Your task to perform on an android device: Empty the shopping cart on costco. Search for "jbl charge 4" on costco, select the first entry, add it to the cart, then select checkout. Image 0: 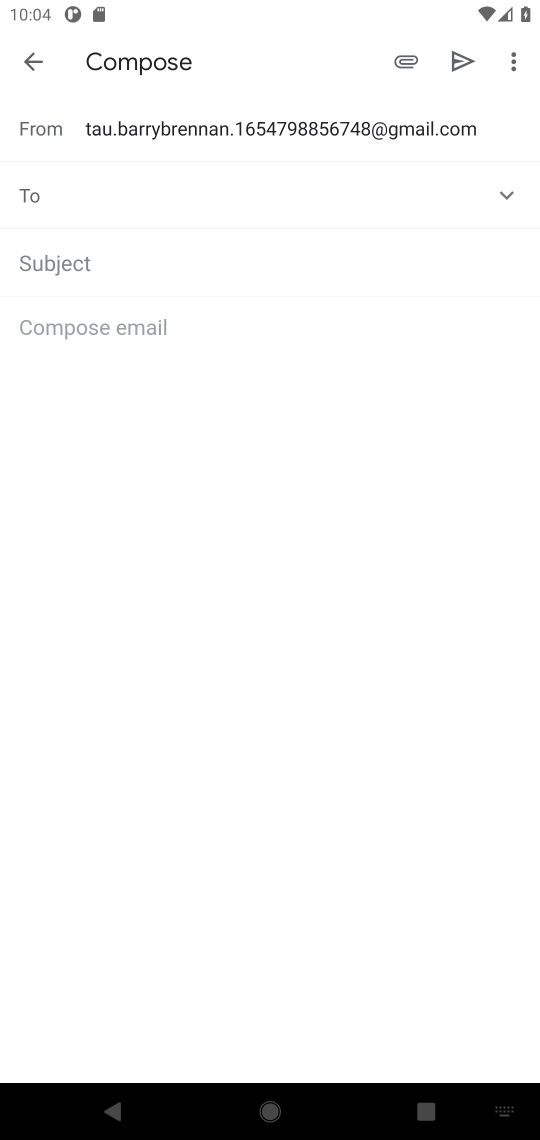
Step 0: press home button
Your task to perform on an android device: Empty the shopping cart on costco. Search for "jbl charge 4" on costco, select the first entry, add it to the cart, then select checkout. Image 1: 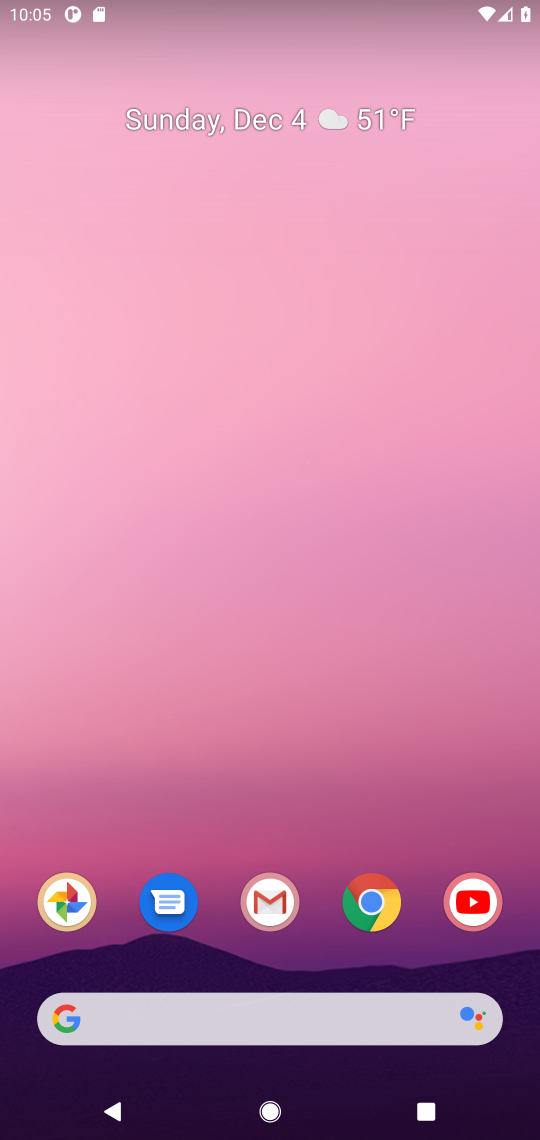
Step 1: click (381, 898)
Your task to perform on an android device: Empty the shopping cart on costco. Search for "jbl charge 4" on costco, select the first entry, add it to the cart, then select checkout. Image 2: 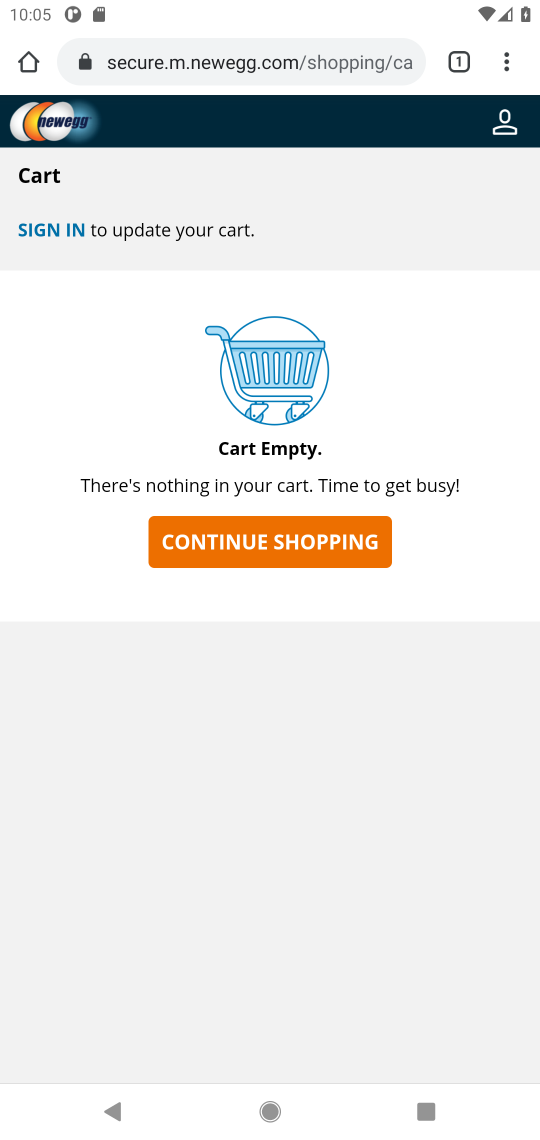
Step 2: click (222, 61)
Your task to perform on an android device: Empty the shopping cart on costco. Search for "jbl charge 4" on costco, select the first entry, add it to the cart, then select checkout. Image 3: 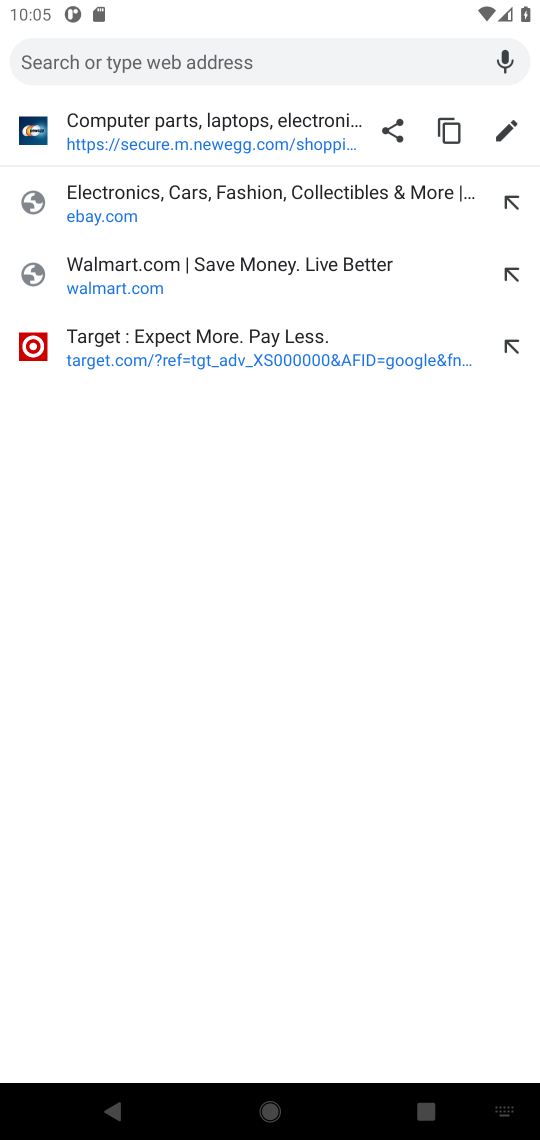
Step 3: type "cosrco"
Your task to perform on an android device: Empty the shopping cart on costco. Search for "jbl charge 4" on costco, select the first entry, add it to the cart, then select checkout. Image 4: 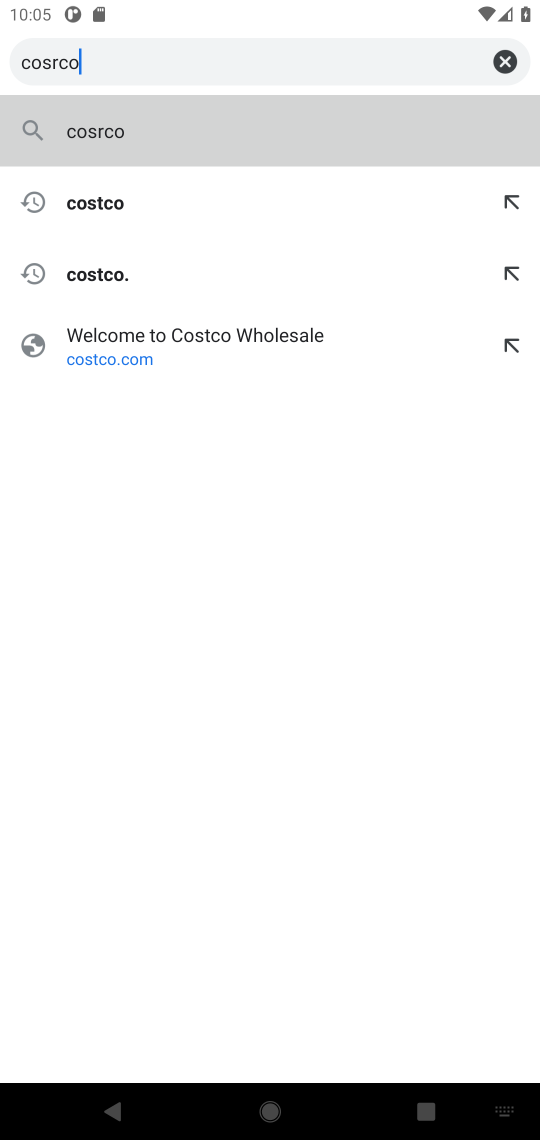
Step 4: click (168, 219)
Your task to perform on an android device: Empty the shopping cart on costco. Search for "jbl charge 4" on costco, select the first entry, add it to the cart, then select checkout. Image 5: 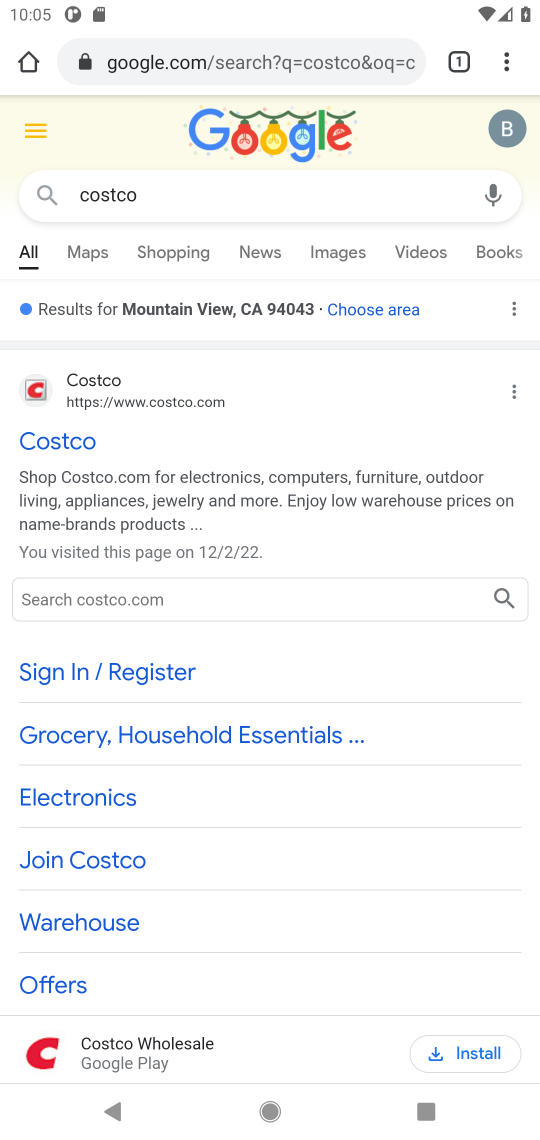
Step 5: click (80, 434)
Your task to perform on an android device: Empty the shopping cart on costco. Search for "jbl charge 4" on costco, select the first entry, add it to the cart, then select checkout. Image 6: 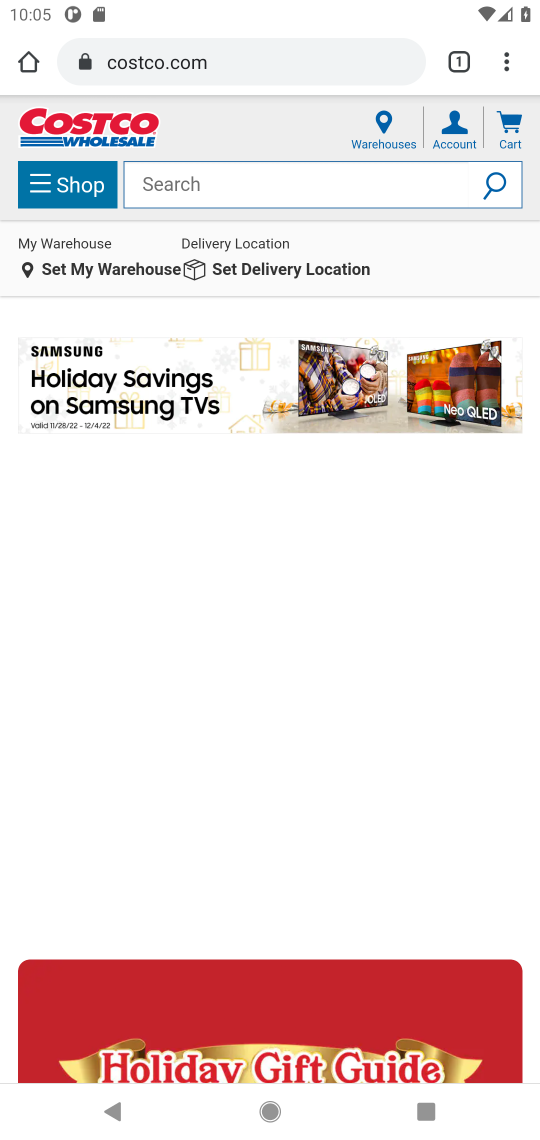
Step 6: click (178, 175)
Your task to perform on an android device: Empty the shopping cart on costco. Search for "jbl charge 4" on costco, select the first entry, add it to the cart, then select checkout. Image 7: 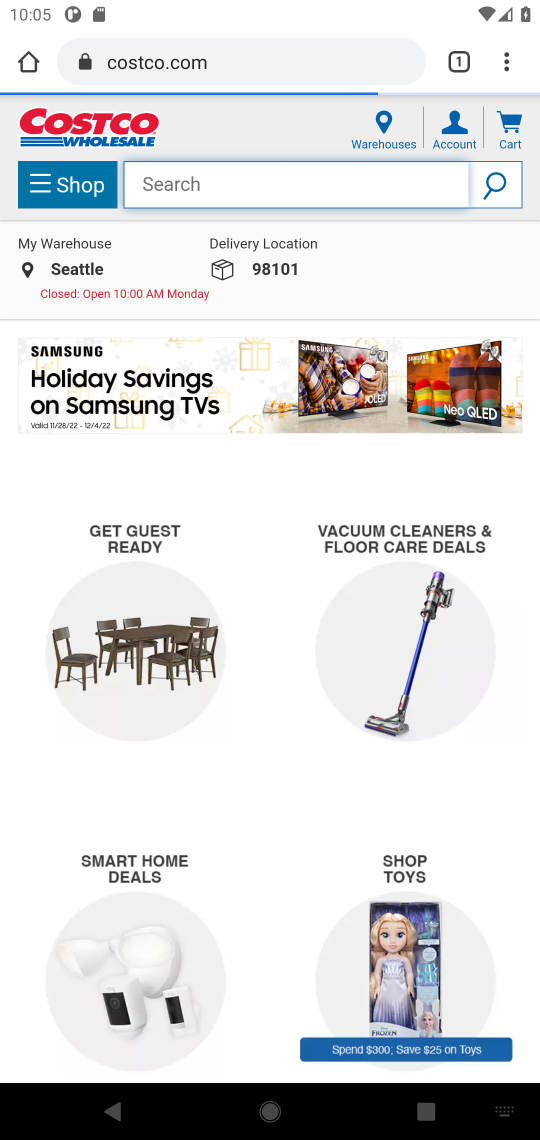
Step 7: click (501, 121)
Your task to perform on an android device: Empty the shopping cart on costco. Search for "jbl charge 4" on costco, select the first entry, add it to the cart, then select checkout. Image 8: 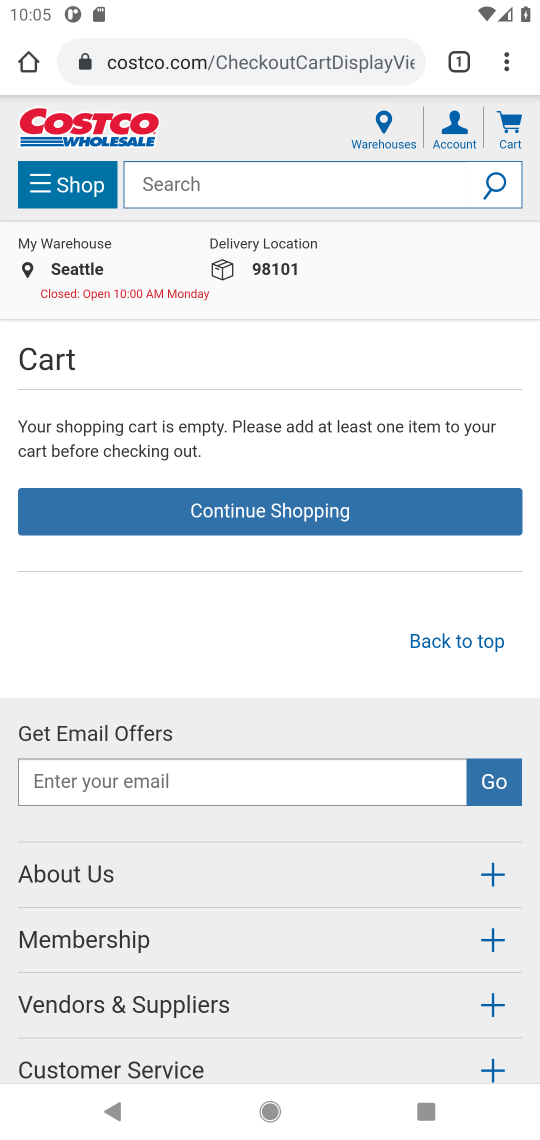
Step 8: click (154, 190)
Your task to perform on an android device: Empty the shopping cart on costco. Search for "jbl charge 4" on costco, select the first entry, add it to the cart, then select checkout. Image 9: 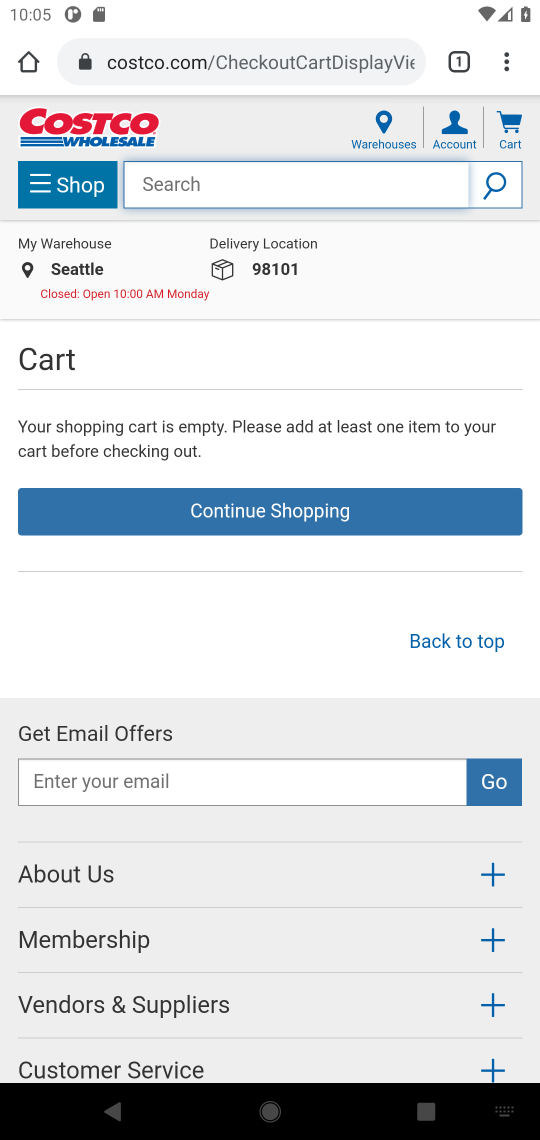
Step 9: type "jbl charge 4"
Your task to perform on an android device: Empty the shopping cart on costco. Search for "jbl charge 4" on costco, select the first entry, add it to the cart, then select checkout. Image 10: 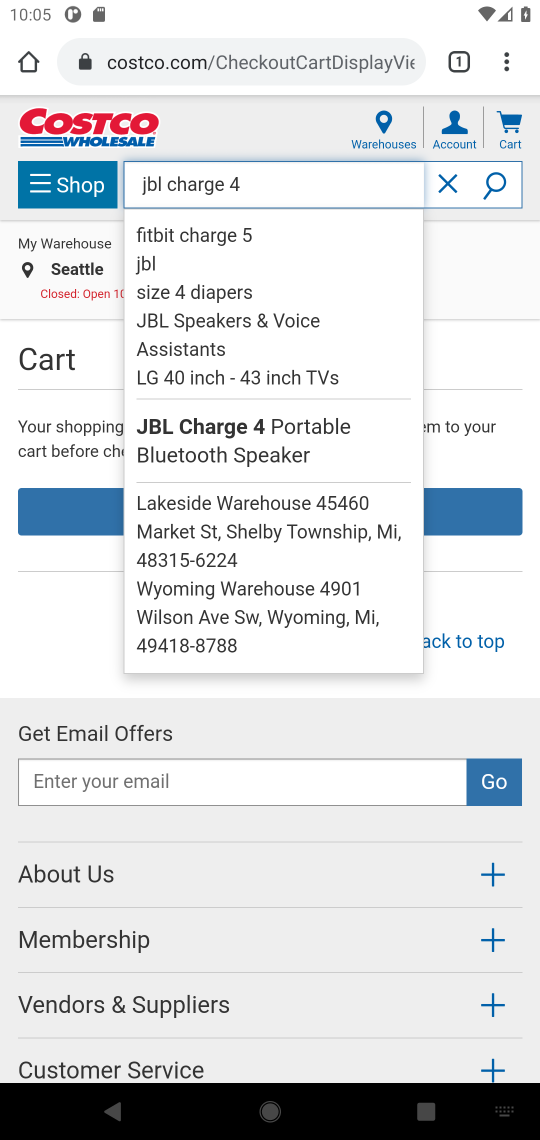
Step 10: click (481, 190)
Your task to perform on an android device: Empty the shopping cart on costco. Search for "jbl charge 4" on costco, select the first entry, add it to the cart, then select checkout. Image 11: 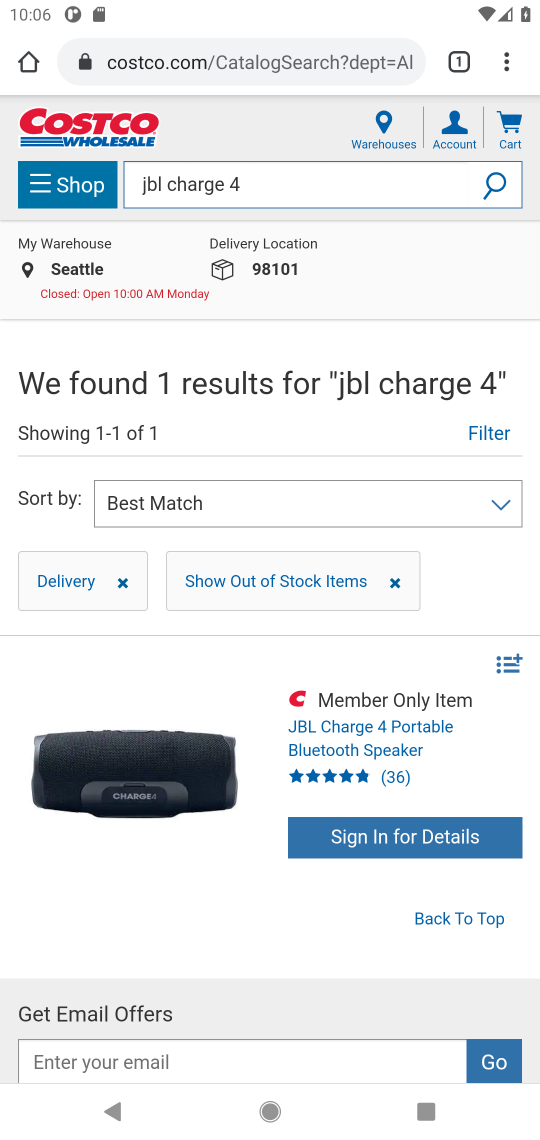
Step 11: click (356, 849)
Your task to perform on an android device: Empty the shopping cart on costco. Search for "jbl charge 4" on costco, select the first entry, add it to the cart, then select checkout. Image 12: 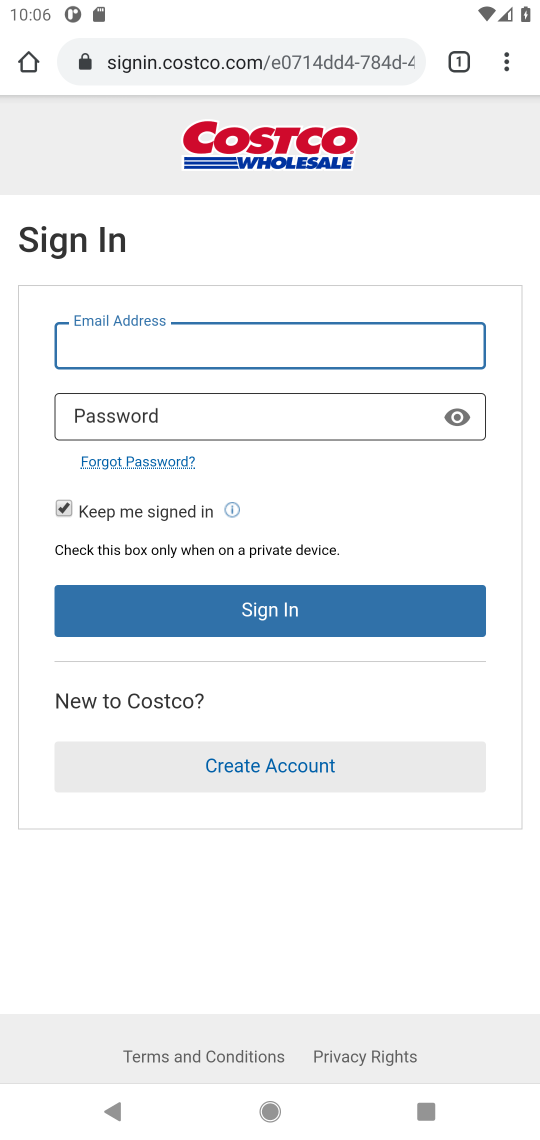
Step 12: task complete